Your task to perform on an android device: Open notification settings Image 0: 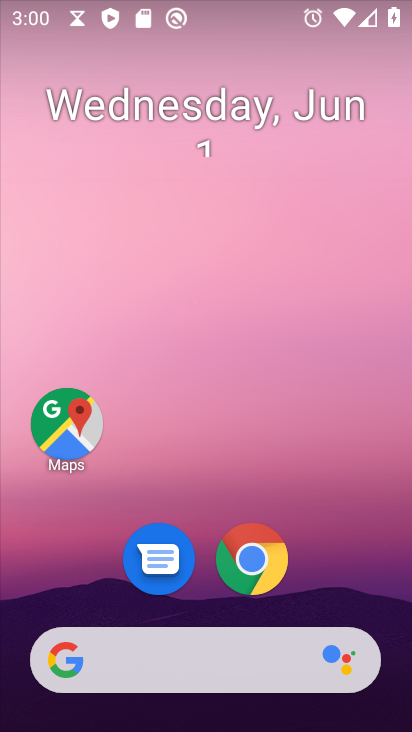
Step 0: drag from (332, 584) to (342, 49)
Your task to perform on an android device: Open notification settings Image 1: 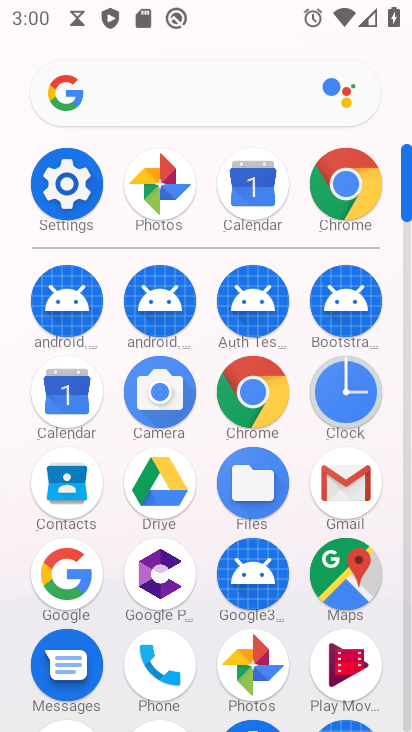
Step 1: click (49, 169)
Your task to perform on an android device: Open notification settings Image 2: 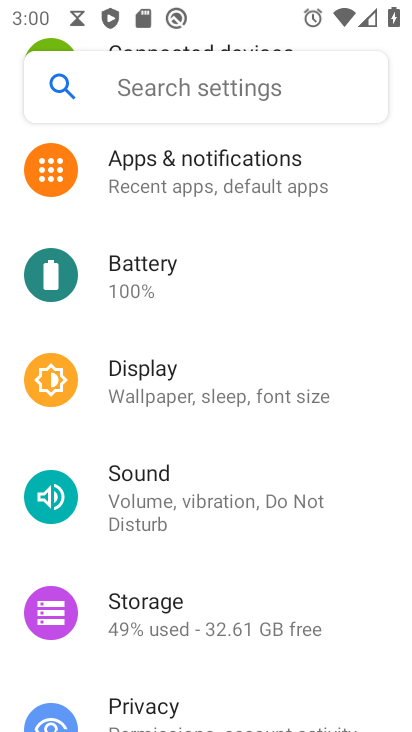
Step 2: click (140, 194)
Your task to perform on an android device: Open notification settings Image 3: 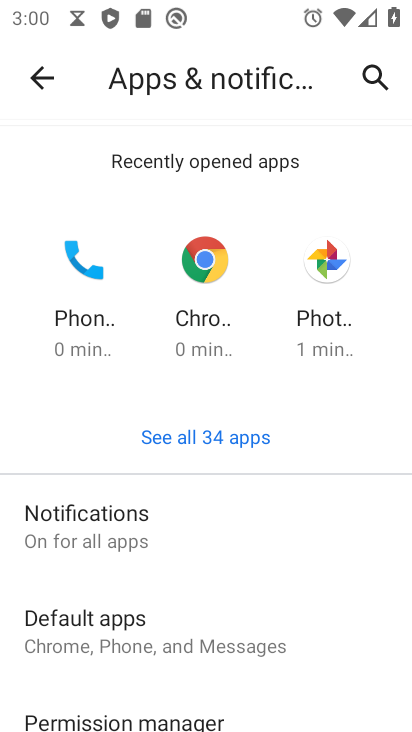
Step 3: click (116, 534)
Your task to perform on an android device: Open notification settings Image 4: 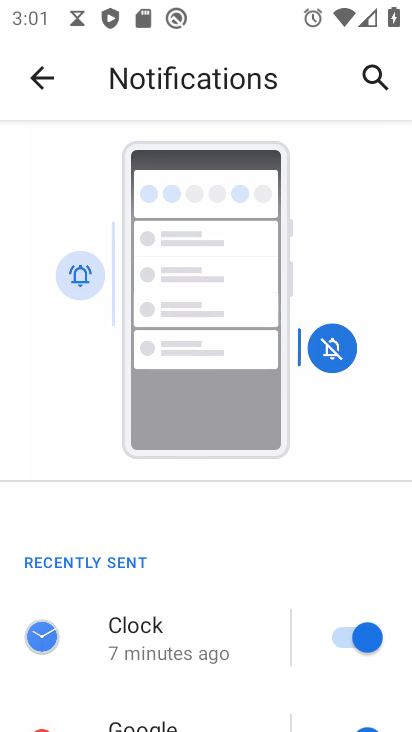
Step 4: task complete